Your task to perform on an android device: Open accessibility settings Image 0: 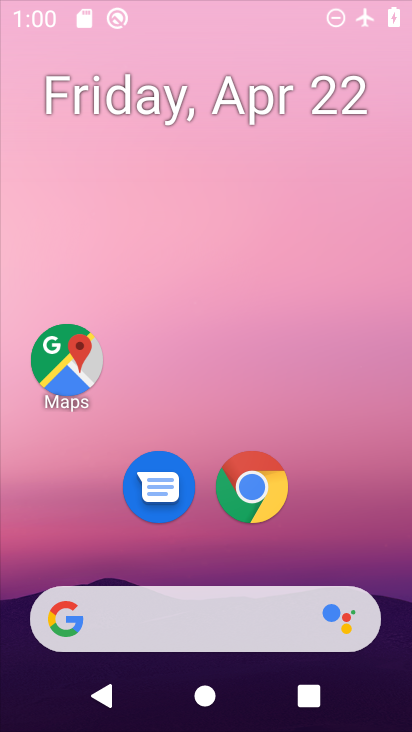
Step 0: click (202, 309)
Your task to perform on an android device: Open accessibility settings Image 1: 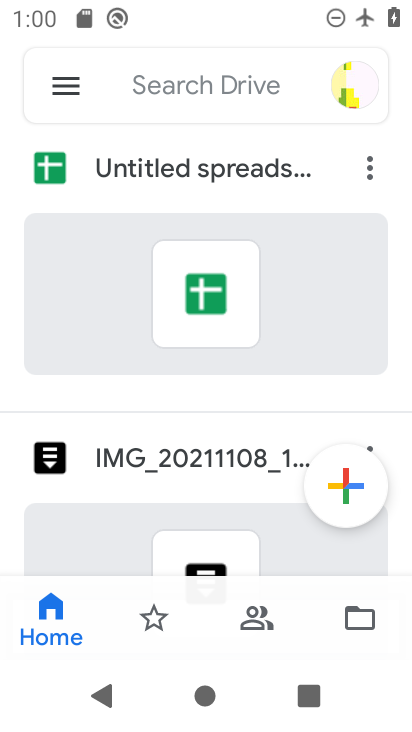
Step 1: press home button
Your task to perform on an android device: Open accessibility settings Image 2: 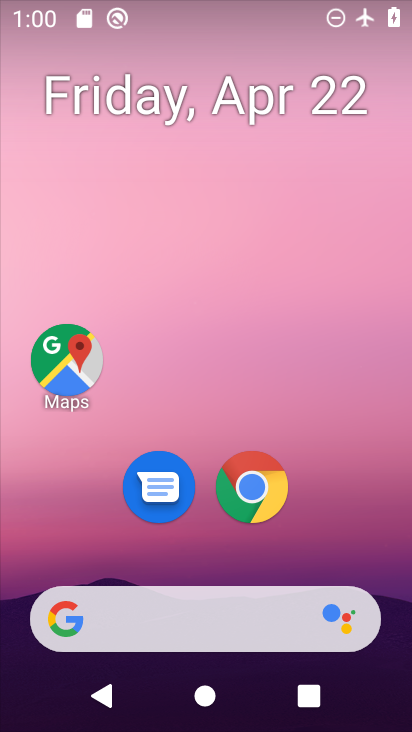
Step 2: drag from (253, 553) to (223, 228)
Your task to perform on an android device: Open accessibility settings Image 3: 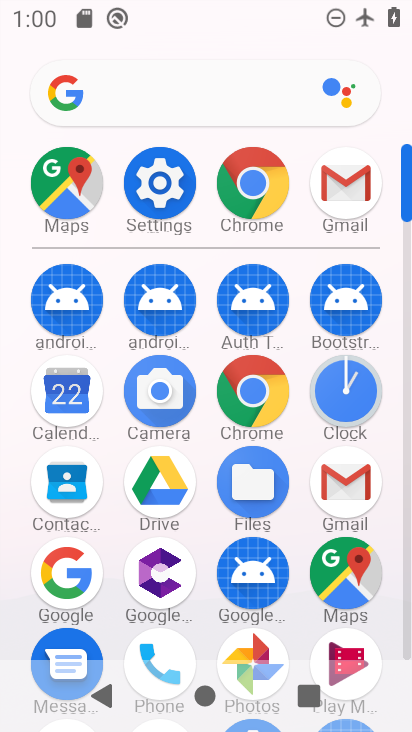
Step 3: click (129, 184)
Your task to perform on an android device: Open accessibility settings Image 4: 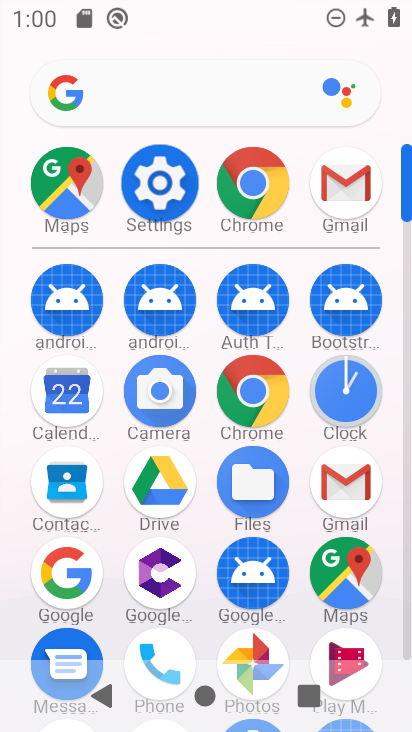
Step 4: click (140, 183)
Your task to perform on an android device: Open accessibility settings Image 5: 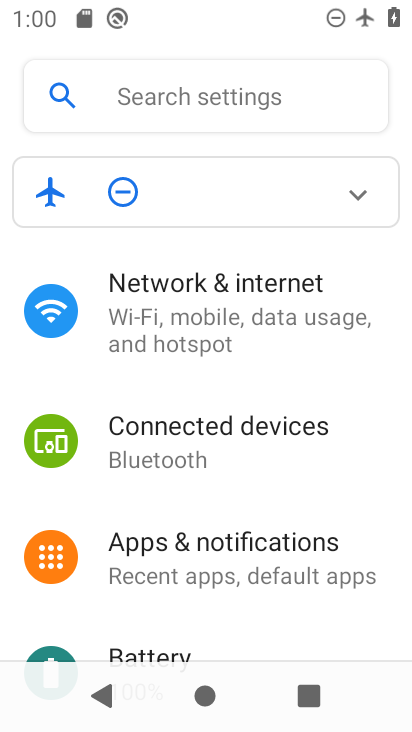
Step 5: drag from (245, 562) to (256, 7)
Your task to perform on an android device: Open accessibility settings Image 6: 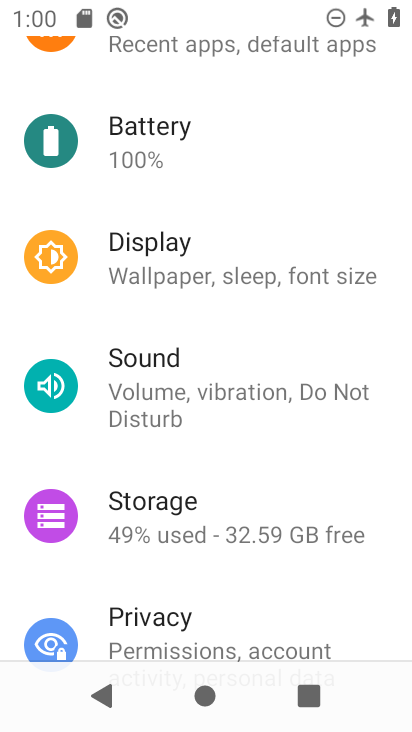
Step 6: drag from (227, 583) to (252, 121)
Your task to perform on an android device: Open accessibility settings Image 7: 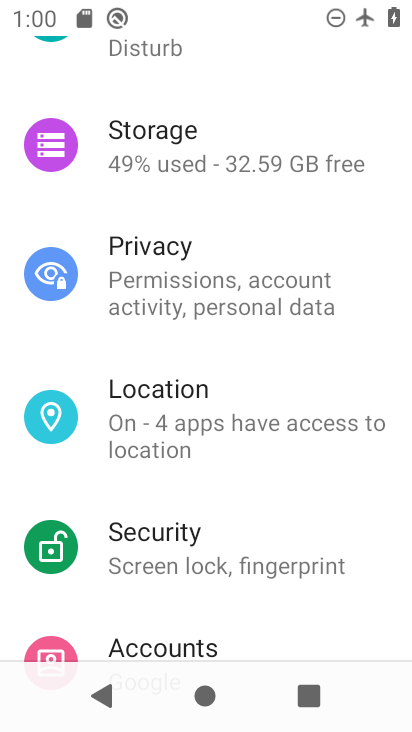
Step 7: drag from (225, 580) to (261, 131)
Your task to perform on an android device: Open accessibility settings Image 8: 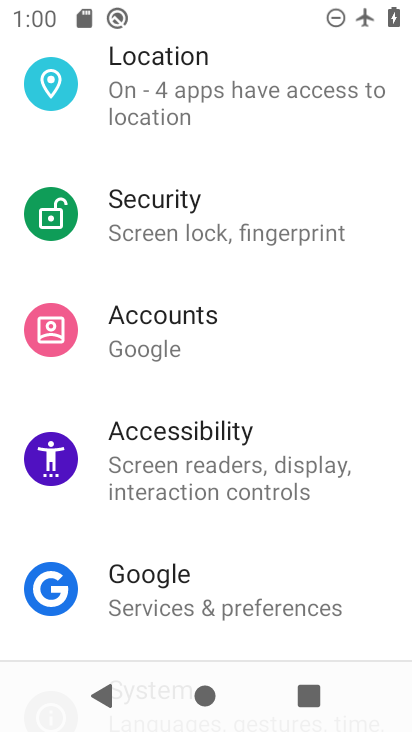
Step 8: click (230, 447)
Your task to perform on an android device: Open accessibility settings Image 9: 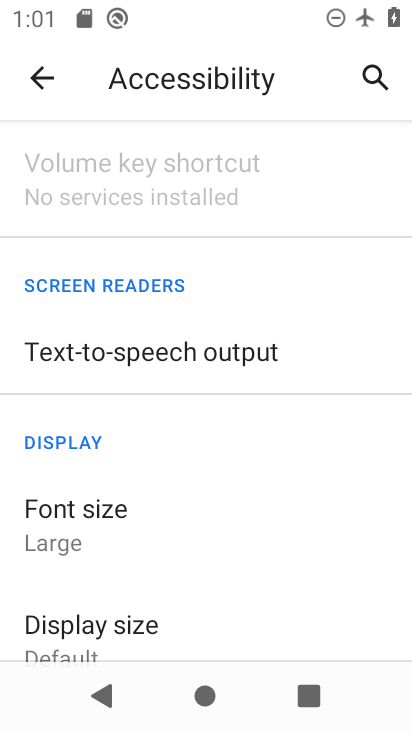
Step 9: task complete